Your task to perform on an android device: What's the weather today? Image 0: 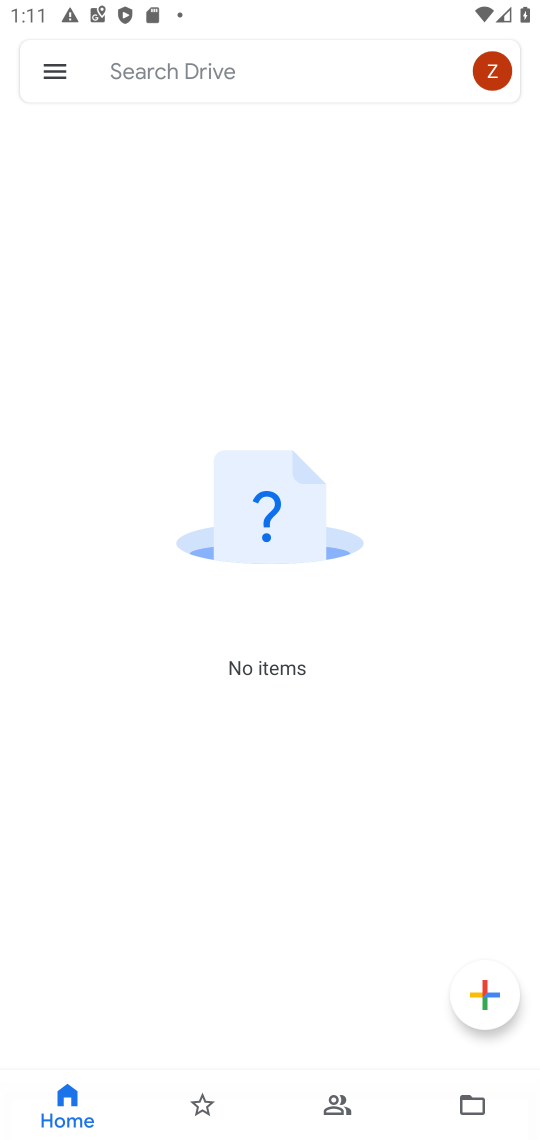
Step 0: press home button
Your task to perform on an android device: What's the weather today? Image 1: 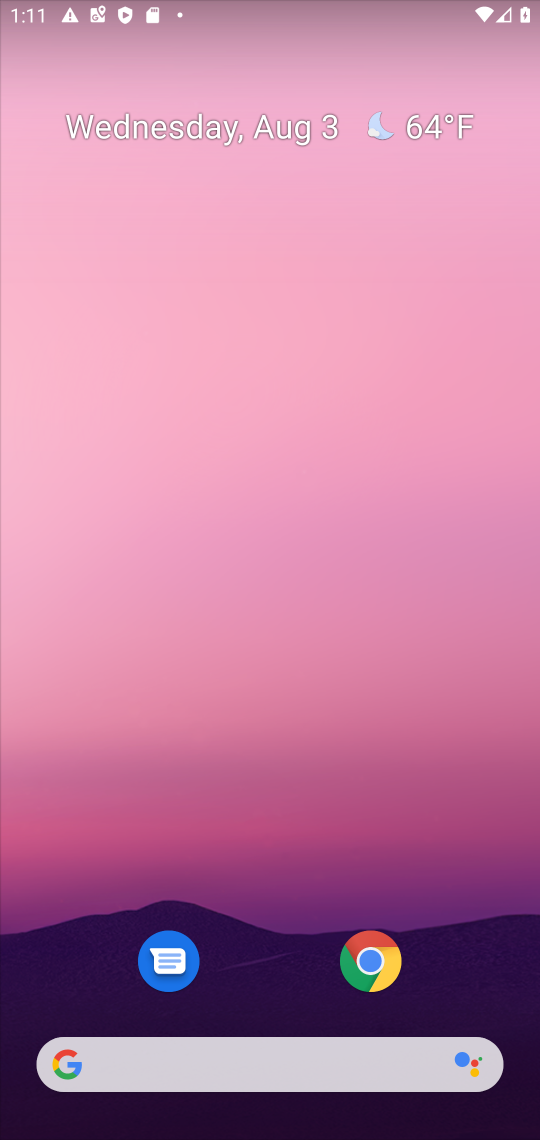
Step 1: click (263, 967)
Your task to perform on an android device: What's the weather today? Image 2: 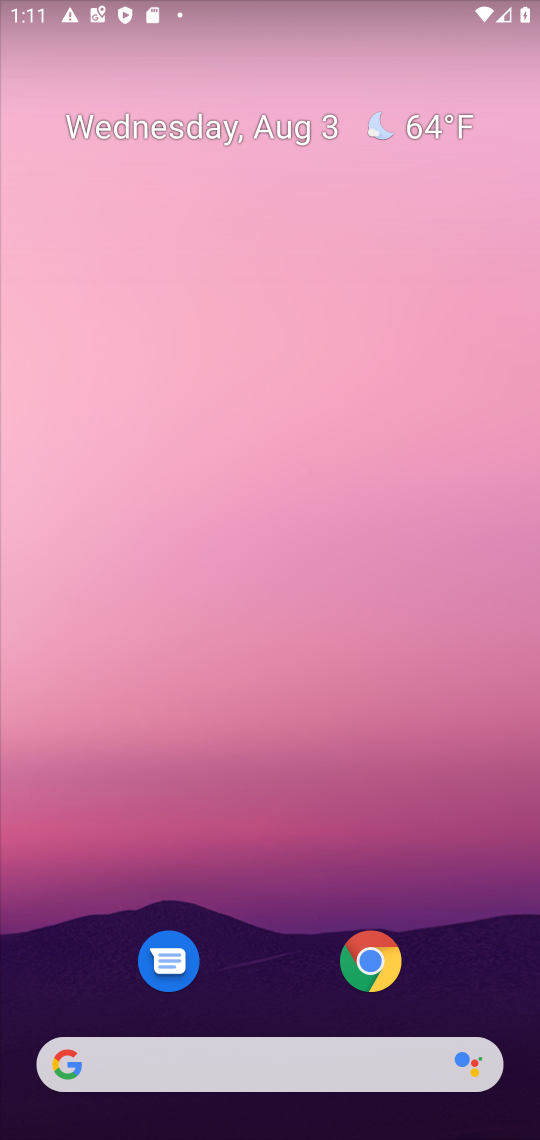
Step 2: click (424, 135)
Your task to perform on an android device: What's the weather today? Image 3: 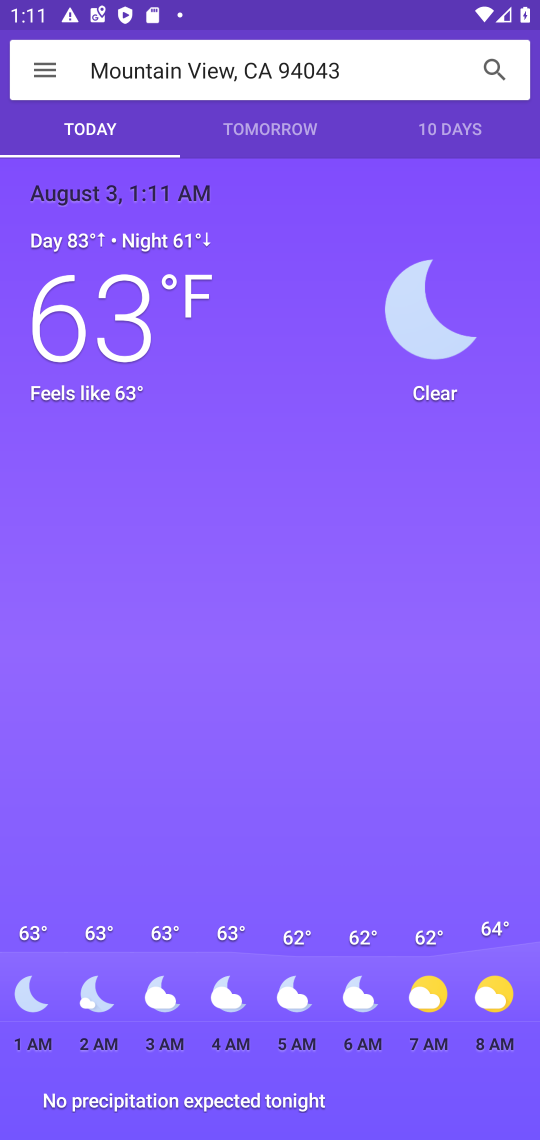
Step 3: task complete